Your task to perform on an android device: Open calendar and show me the first week of next month Image 0: 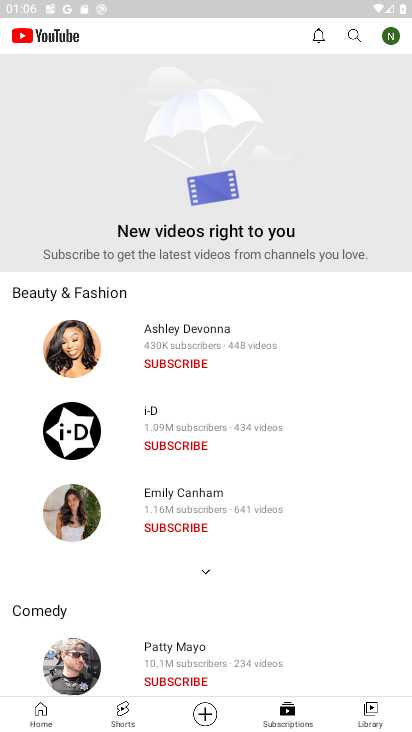
Step 0: press home button
Your task to perform on an android device: Open calendar and show me the first week of next month Image 1: 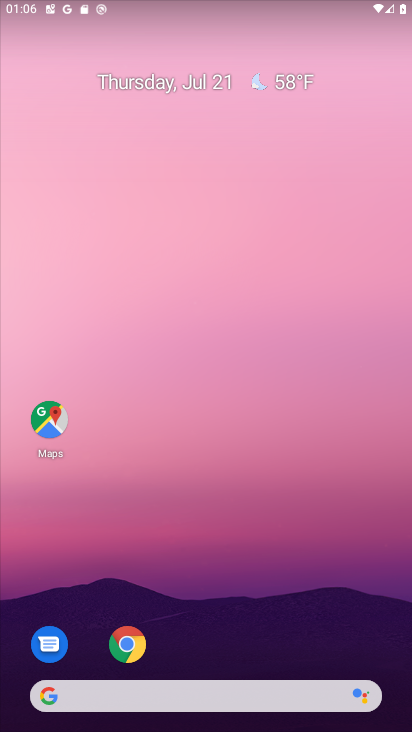
Step 1: drag from (207, 710) to (280, 11)
Your task to perform on an android device: Open calendar and show me the first week of next month Image 2: 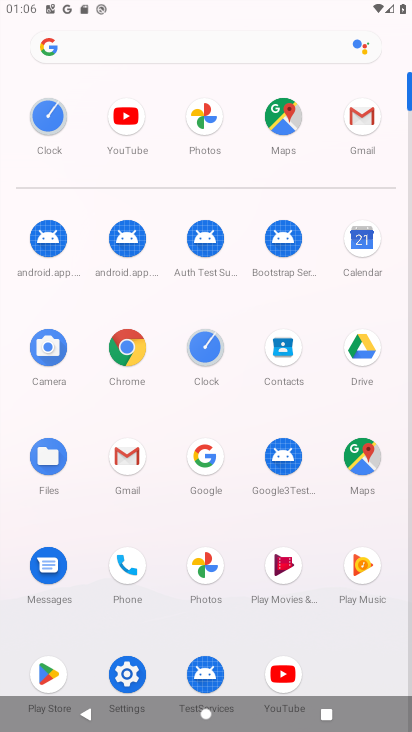
Step 2: click (361, 255)
Your task to perform on an android device: Open calendar and show me the first week of next month Image 3: 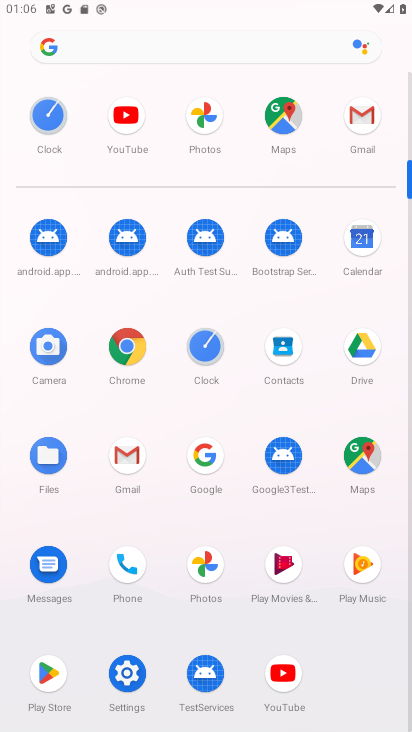
Step 3: click (358, 242)
Your task to perform on an android device: Open calendar and show me the first week of next month Image 4: 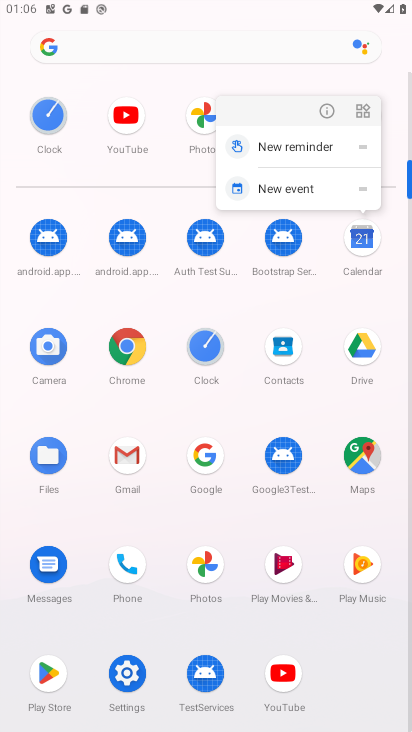
Step 4: click (358, 240)
Your task to perform on an android device: Open calendar and show me the first week of next month Image 5: 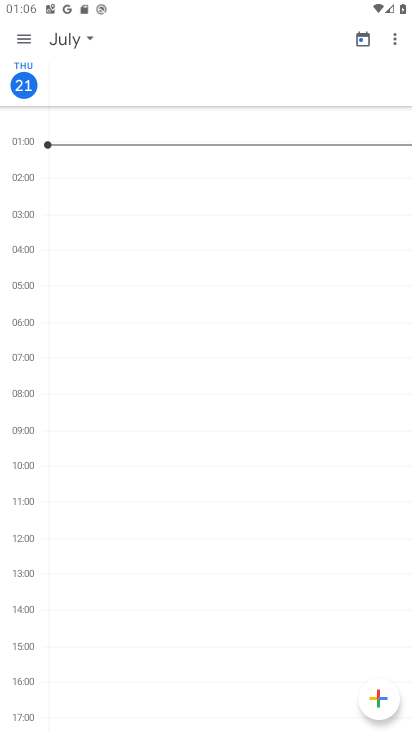
Step 5: click (53, 42)
Your task to perform on an android device: Open calendar and show me the first week of next month Image 6: 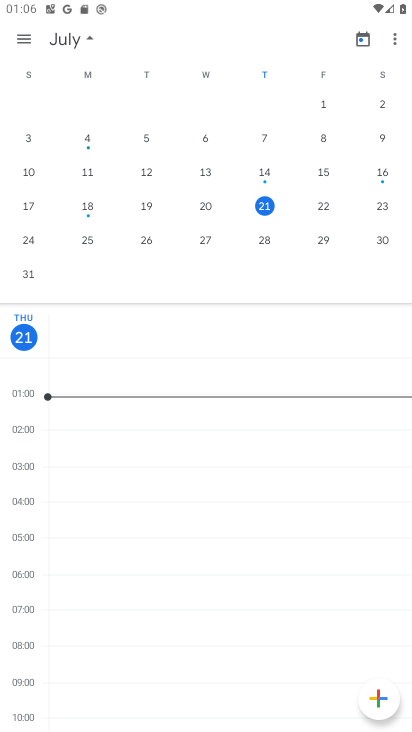
Step 6: task complete